Your task to perform on an android device: Go to internet settings Image 0: 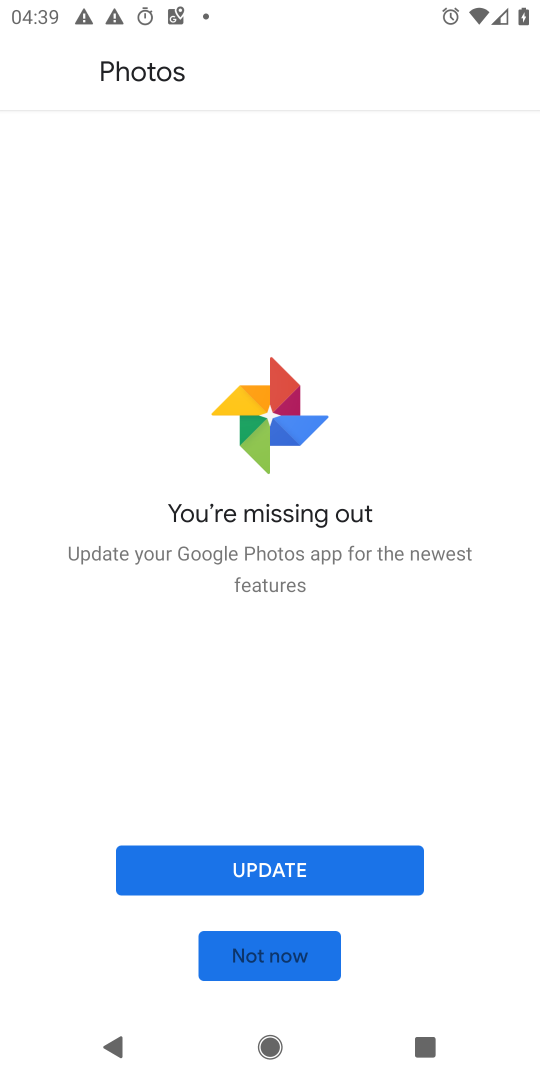
Step 0: press home button
Your task to perform on an android device: Go to internet settings Image 1: 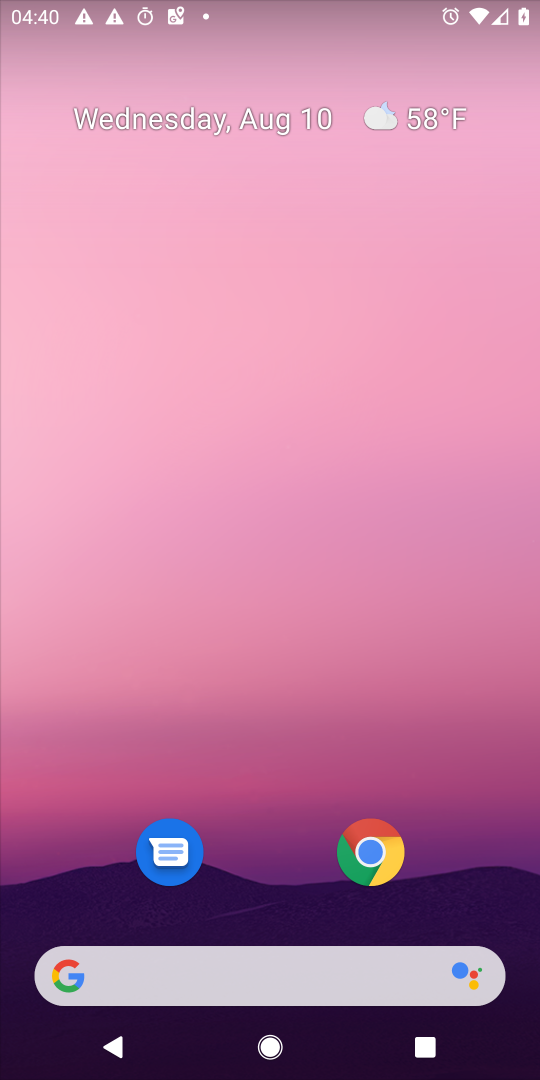
Step 1: drag from (264, 898) to (253, 276)
Your task to perform on an android device: Go to internet settings Image 2: 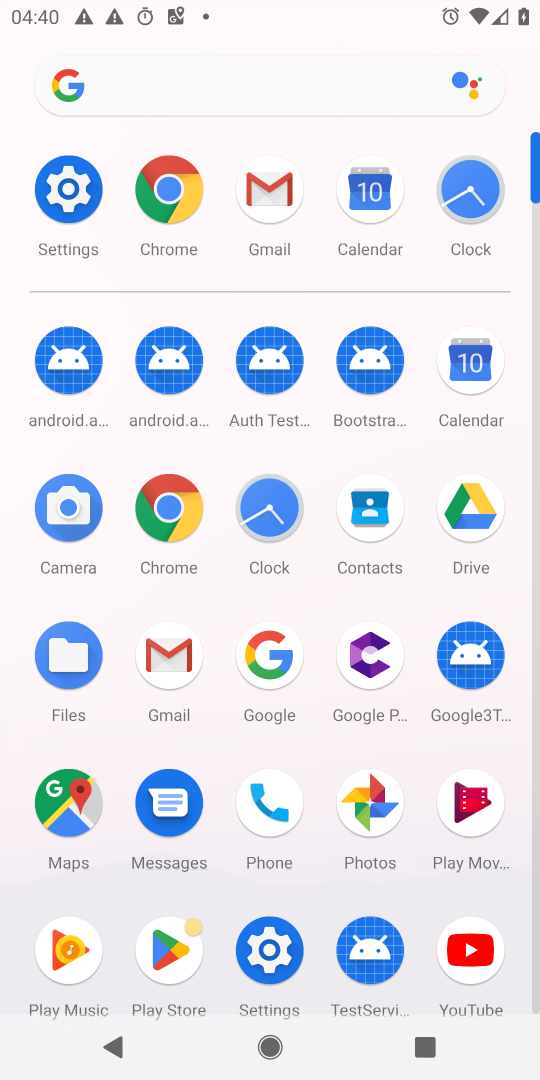
Step 2: click (268, 938)
Your task to perform on an android device: Go to internet settings Image 3: 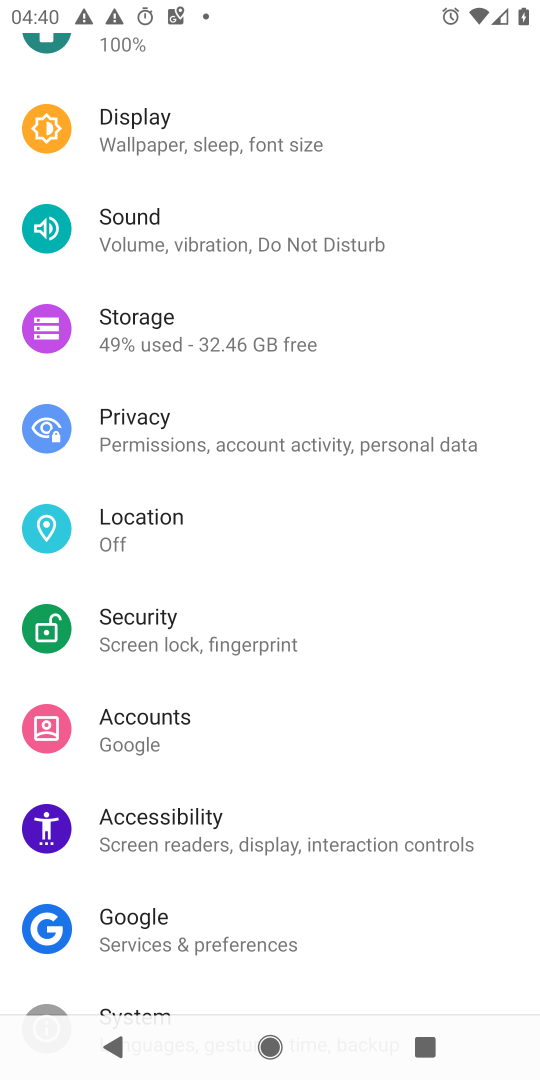
Step 3: drag from (425, 186) to (538, 787)
Your task to perform on an android device: Go to internet settings Image 4: 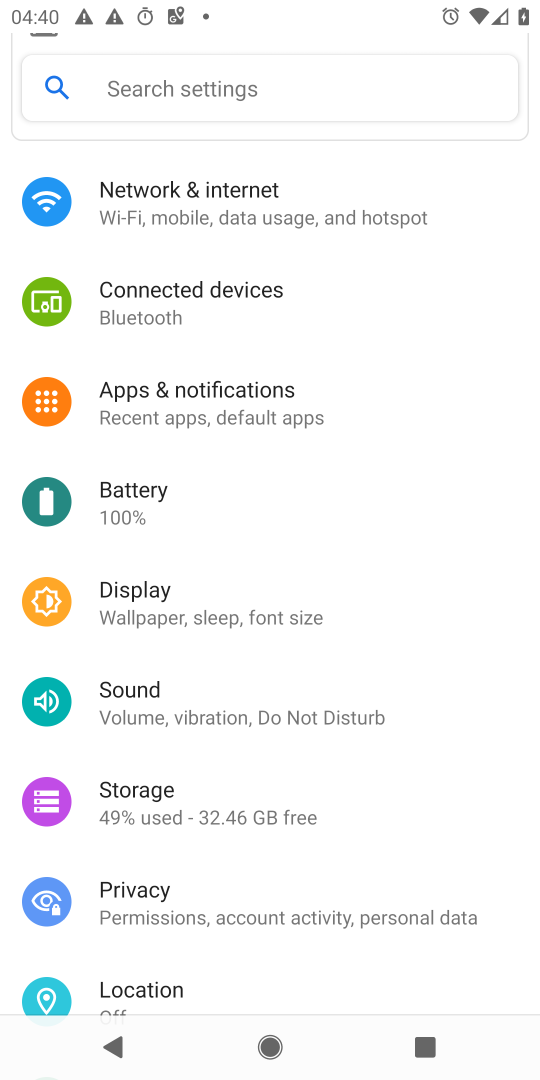
Step 4: click (169, 226)
Your task to perform on an android device: Go to internet settings Image 5: 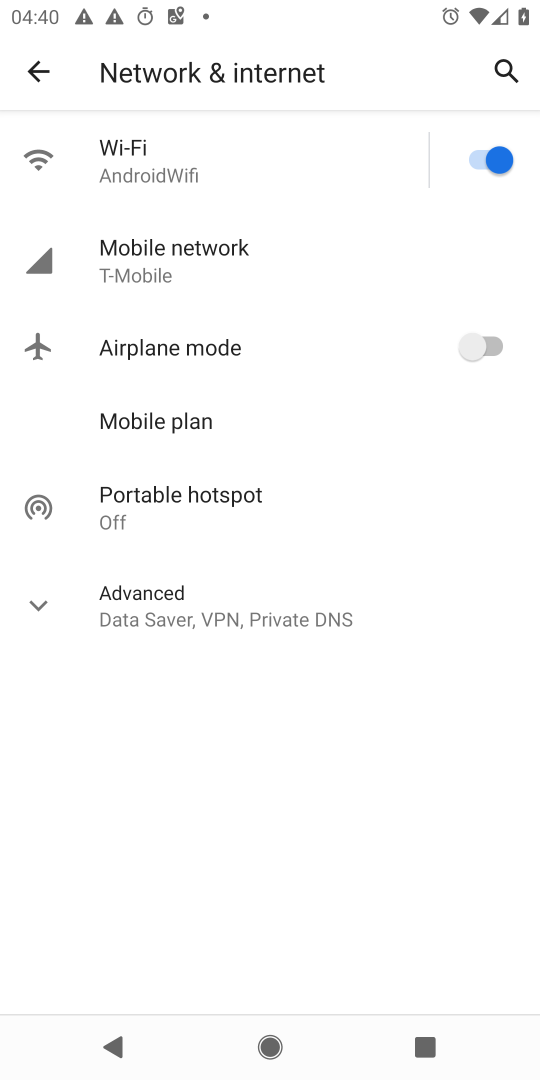
Step 5: click (161, 625)
Your task to perform on an android device: Go to internet settings Image 6: 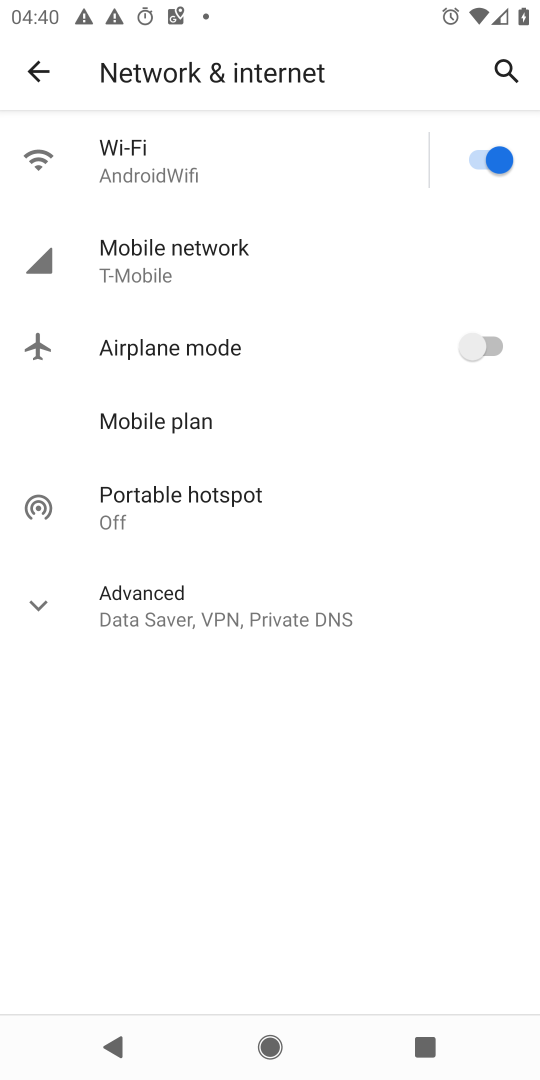
Step 6: click (181, 616)
Your task to perform on an android device: Go to internet settings Image 7: 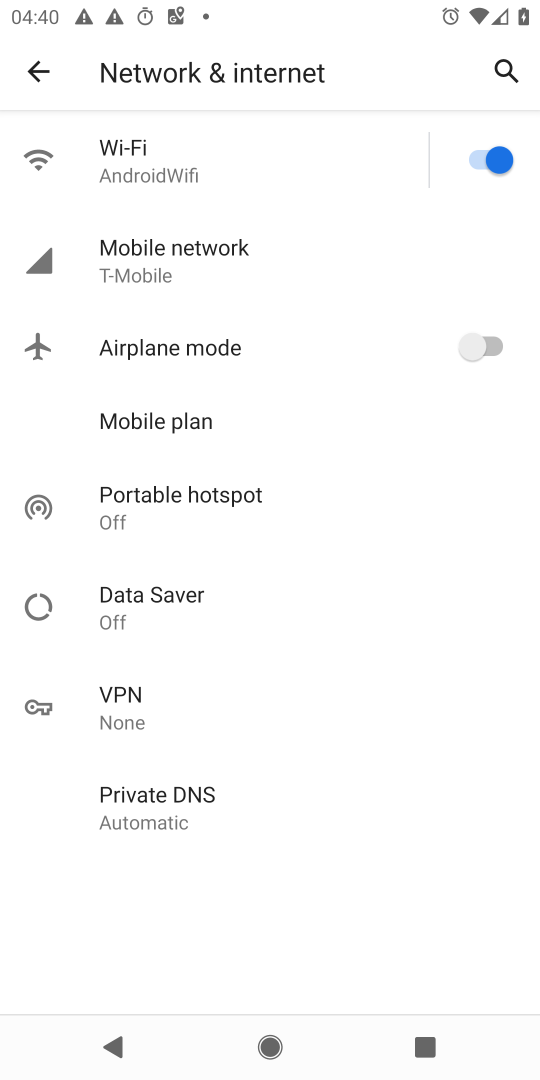
Step 7: task complete